Your task to perform on an android device: Search for seafood restaurants on Google Maps Image 0: 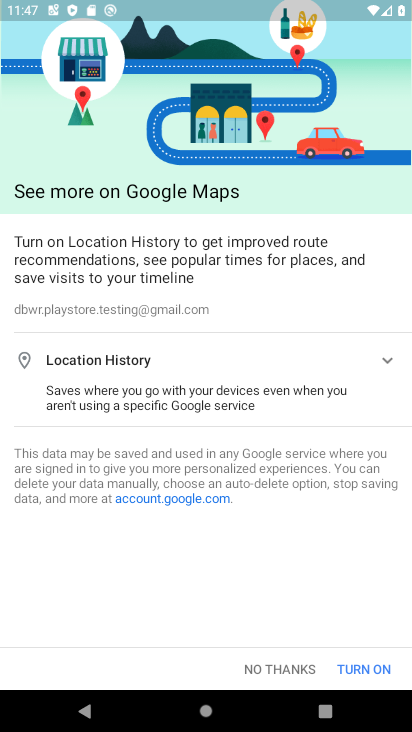
Step 0: press home button
Your task to perform on an android device: Search for seafood restaurants on Google Maps Image 1: 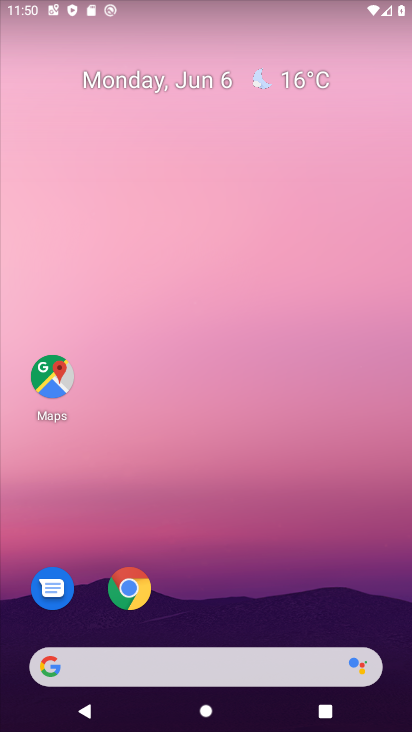
Step 1: click (46, 385)
Your task to perform on an android device: Search for seafood restaurants on Google Maps Image 2: 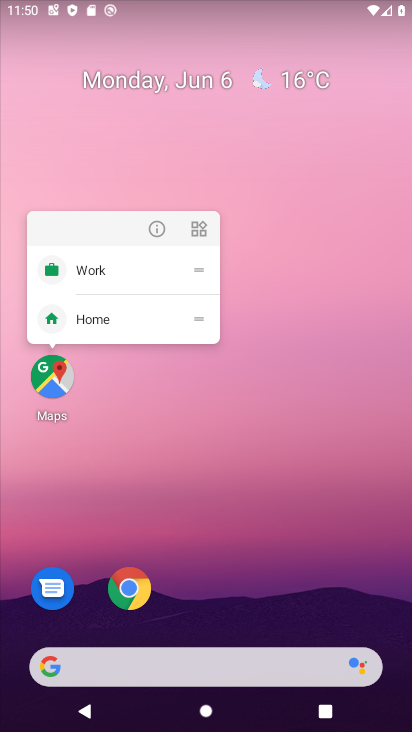
Step 2: click (57, 386)
Your task to perform on an android device: Search for seafood restaurants on Google Maps Image 3: 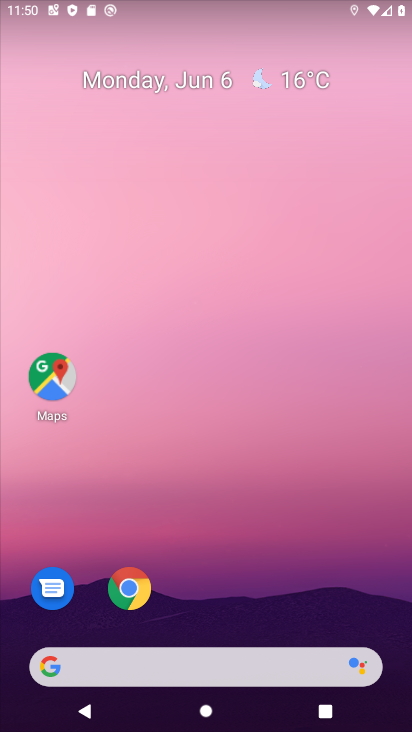
Step 3: click (57, 386)
Your task to perform on an android device: Search for seafood restaurants on Google Maps Image 4: 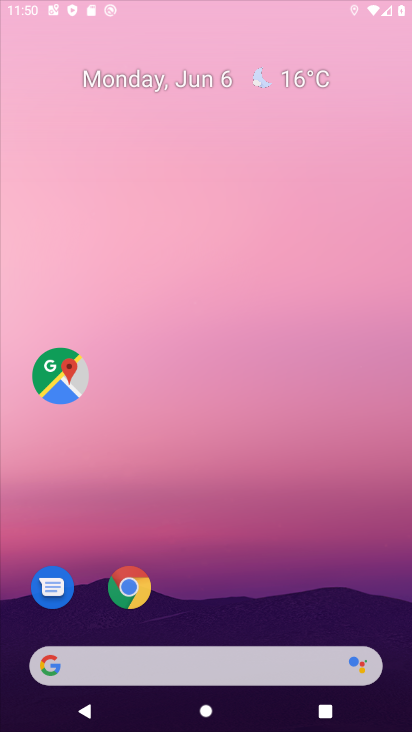
Step 4: click (57, 386)
Your task to perform on an android device: Search for seafood restaurants on Google Maps Image 5: 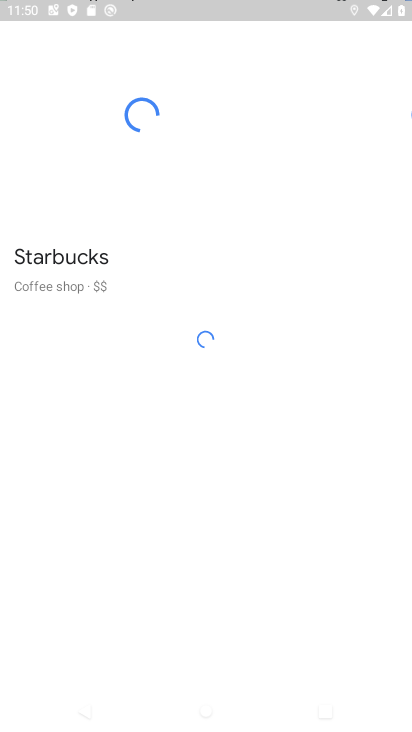
Step 5: click (338, 47)
Your task to perform on an android device: Search for seafood restaurants on Google Maps Image 6: 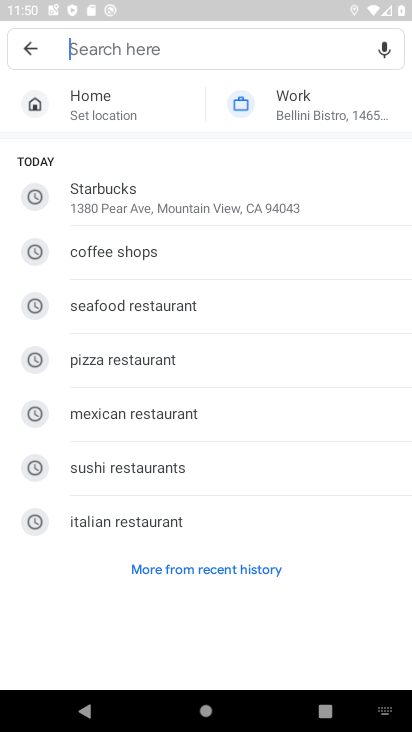
Step 6: click (152, 303)
Your task to perform on an android device: Search for seafood restaurants on Google Maps Image 7: 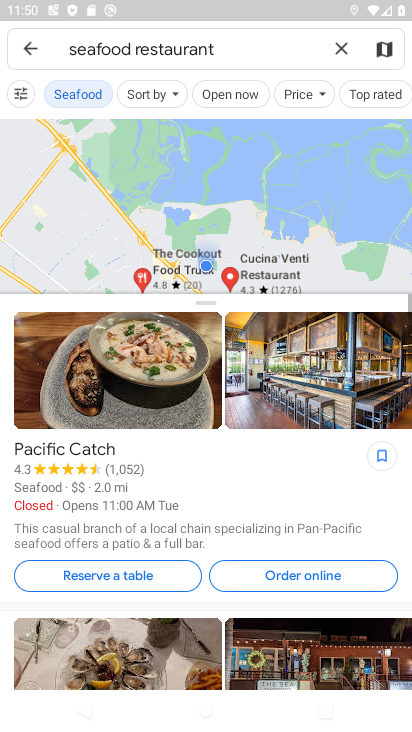
Step 7: task complete